Your task to perform on an android device: Find coffee shops on Maps Image 0: 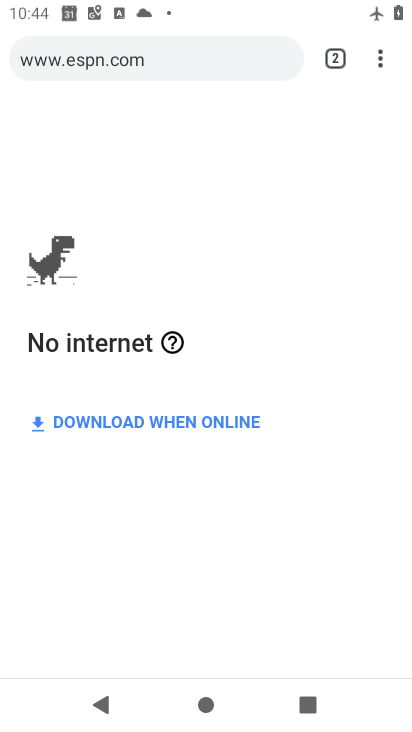
Step 0: press home button
Your task to perform on an android device: Find coffee shops on Maps Image 1: 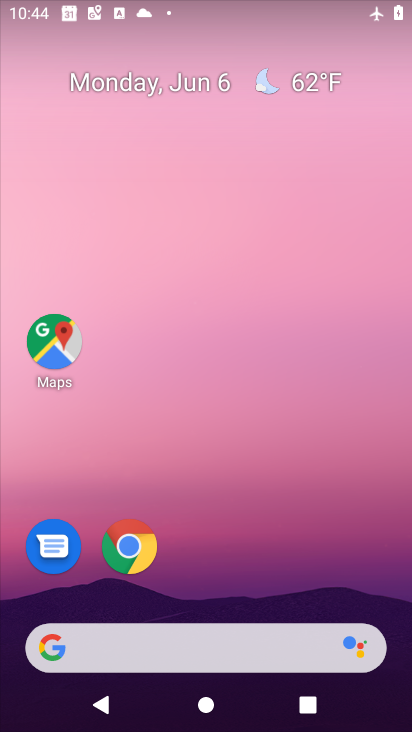
Step 1: click (50, 338)
Your task to perform on an android device: Find coffee shops on Maps Image 2: 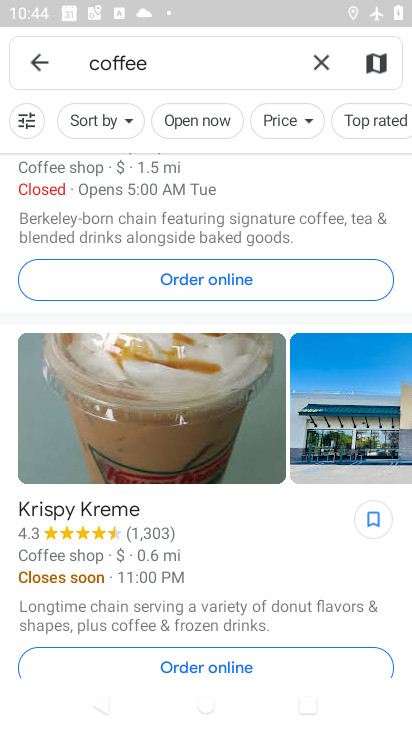
Step 2: task complete